Your task to perform on an android device: star an email in the gmail app Image 0: 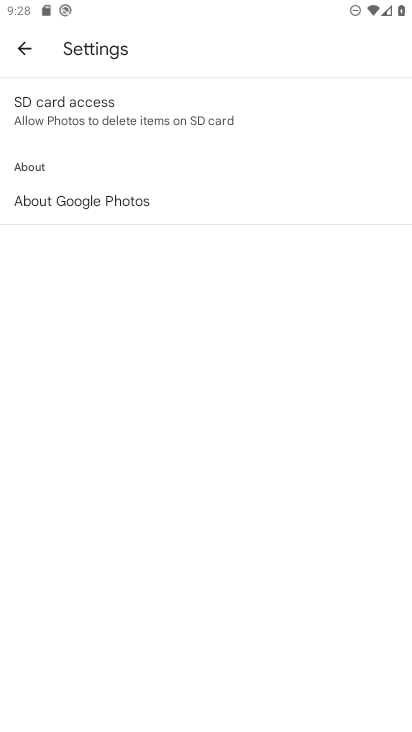
Step 0: press home button
Your task to perform on an android device: star an email in the gmail app Image 1: 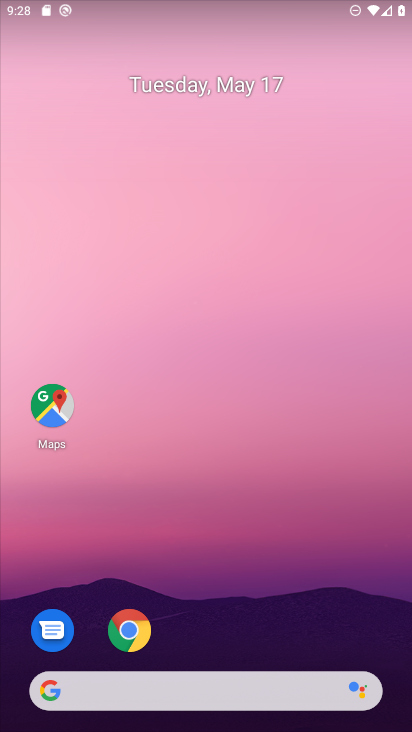
Step 1: drag from (328, 590) to (315, 194)
Your task to perform on an android device: star an email in the gmail app Image 2: 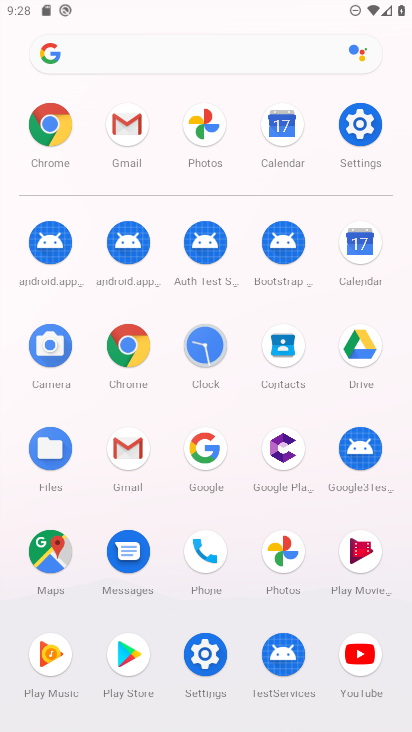
Step 2: click (134, 455)
Your task to perform on an android device: star an email in the gmail app Image 3: 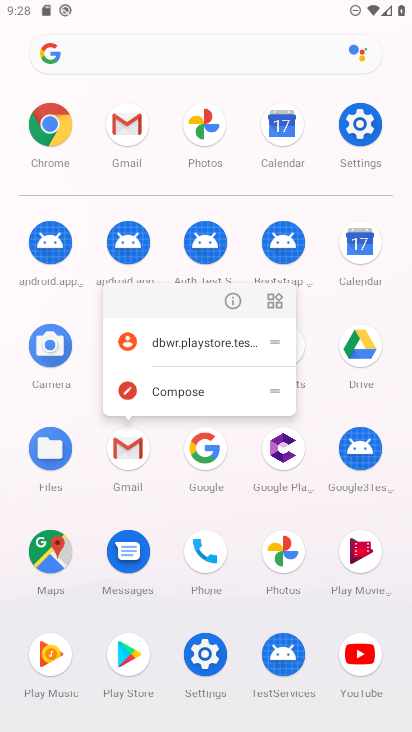
Step 3: click (133, 449)
Your task to perform on an android device: star an email in the gmail app Image 4: 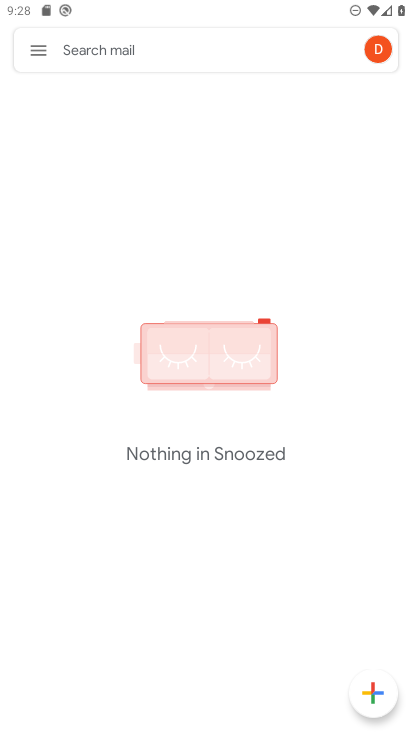
Step 4: click (40, 41)
Your task to perform on an android device: star an email in the gmail app Image 5: 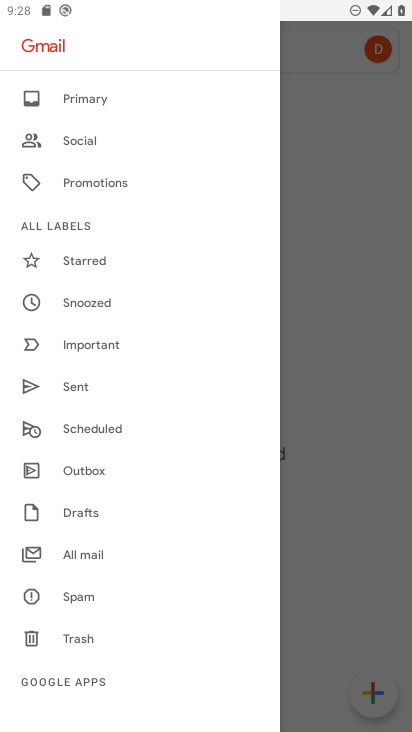
Step 5: click (97, 99)
Your task to perform on an android device: star an email in the gmail app Image 6: 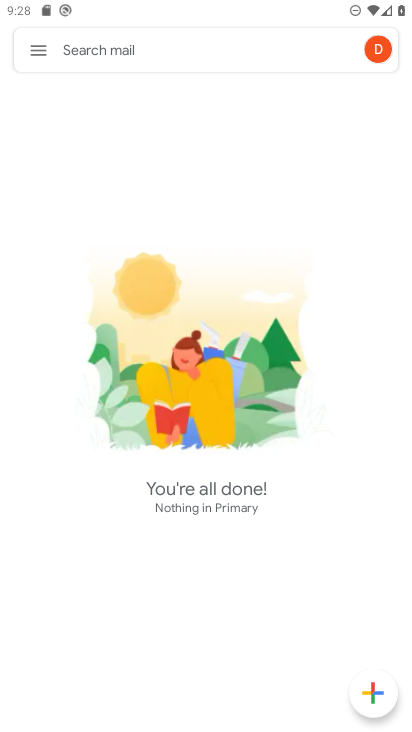
Step 6: task complete